Your task to perform on an android device: search for starred emails in the gmail app Image 0: 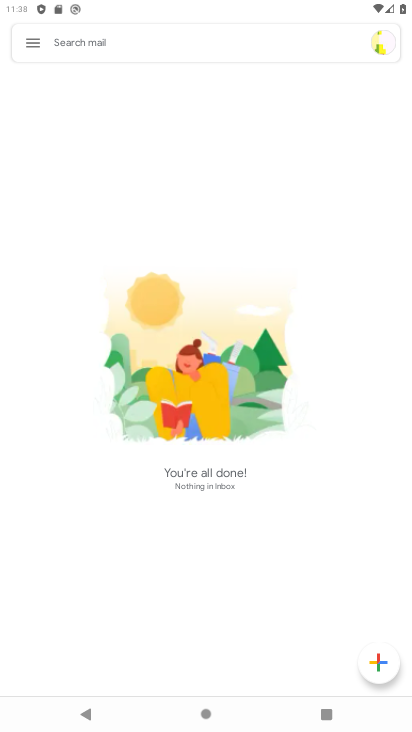
Step 0: press home button
Your task to perform on an android device: search for starred emails in the gmail app Image 1: 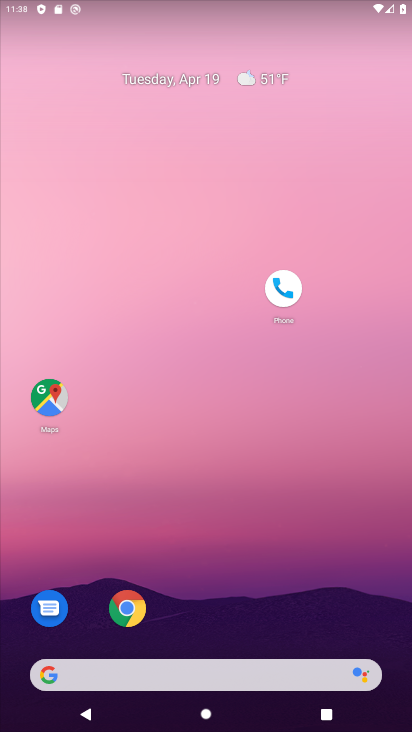
Step 1: drag from (152, 558) to (247, 64)
Your task to perform on an android device: search for starred emails in the gmail app Image 2: 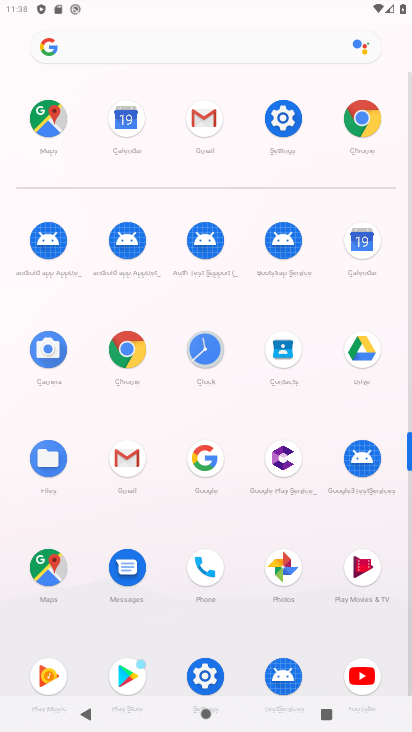
Step 2: click (117, 460)
Your task to perform on an android device: search for starred emails in the gmail app Image 3: 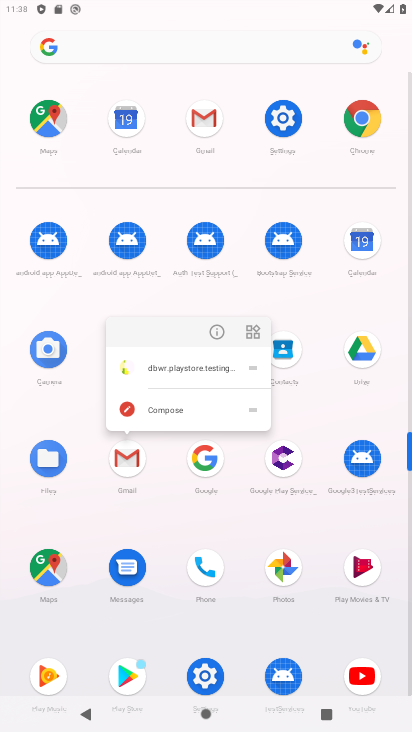
Step 3: click (213, 330)
Your task to perform on an android device: search for starred emails in the gmail app Image 4: 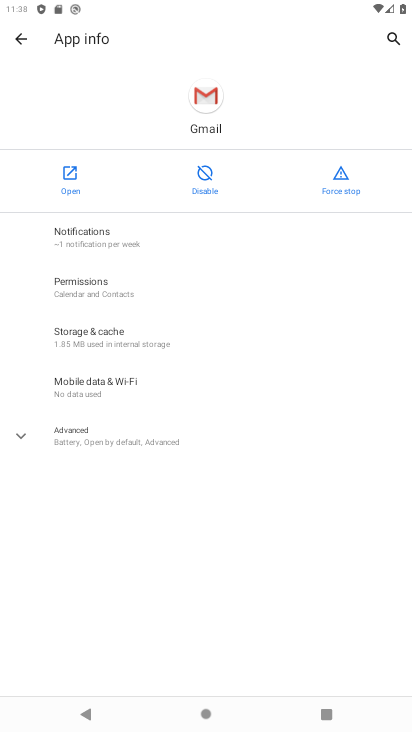
Step 4: click (64, 170)
Your task to perform on an android device: search for starred emails in the gmail app Image 5: 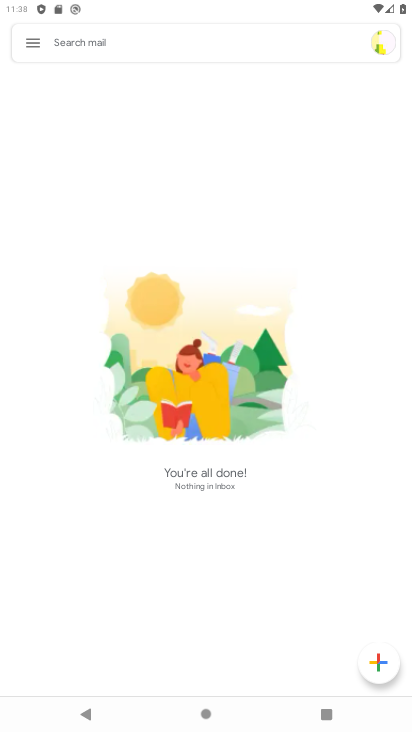
Step 5: click (22, 44)
Your task to perform on an android device: search for starred emails in the gmail app Image 6: 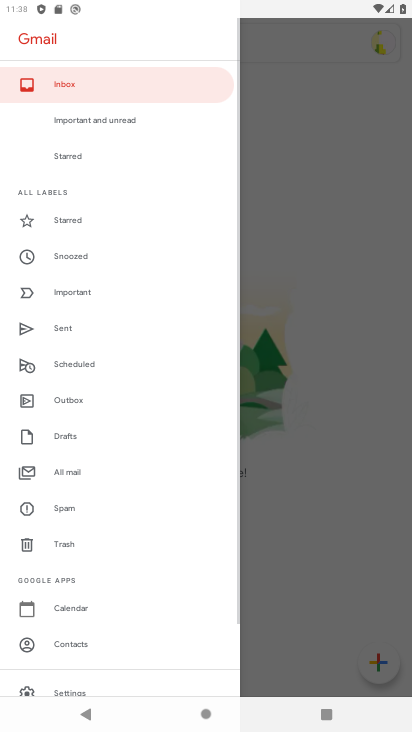
Step 6: click (55, 221)
Your task to perform on an android device: search for starred emails in the gmail app Image 7: 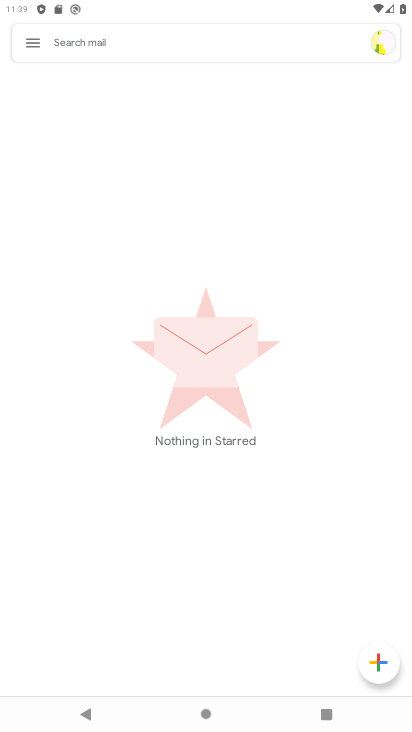
Step 7: task complete